Your task to perform on an android device: all mails in gmail Image 0: 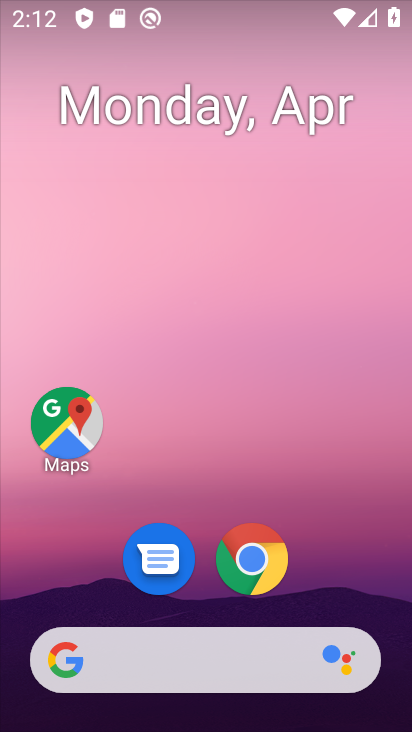
Step 0: drag from (320, 550) to (43, 41)
Your task to perform on an android device: all mails in gmail Image 1: 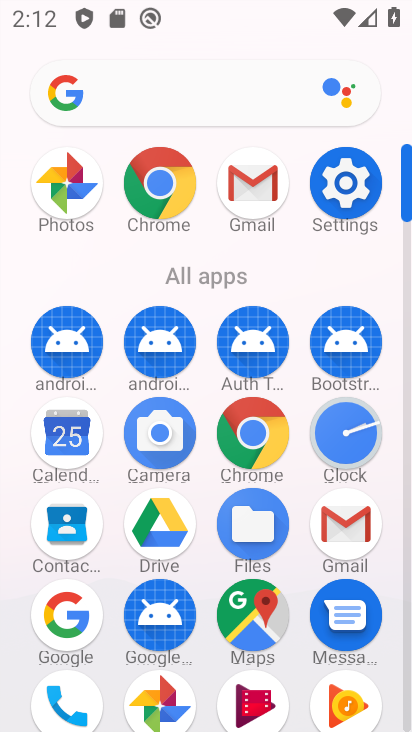
Step 1: click (256, 183)
Your task to perform on an android device: all mails in gmail Image 2: 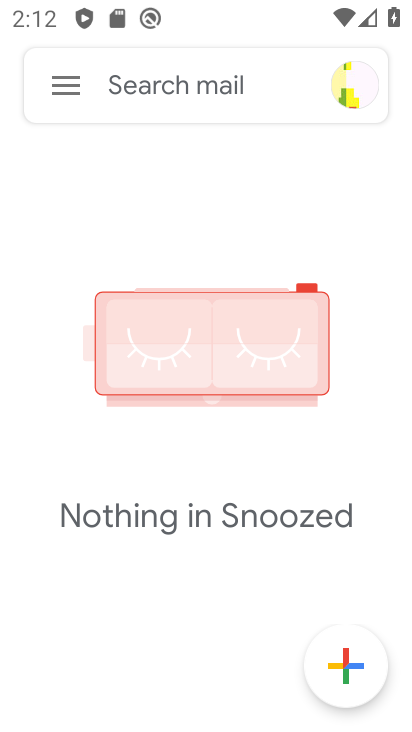
Step 2: click (69, 90)
Your task to perform on an android device: all mails in gmail Image 3: 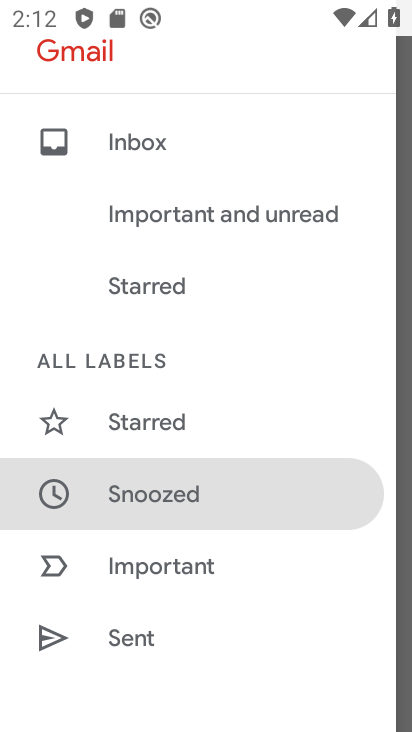
Step 3: drag from (218, 639) to (171, 231)
Your task to perform on an android device: all mails in gmail Image 4: 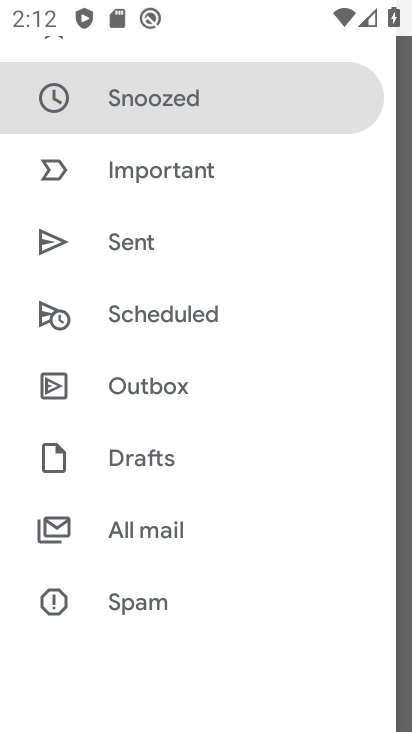
Step 4: click (135, 528)
Your task to perform on an android device: all mails in gmail Image 5: 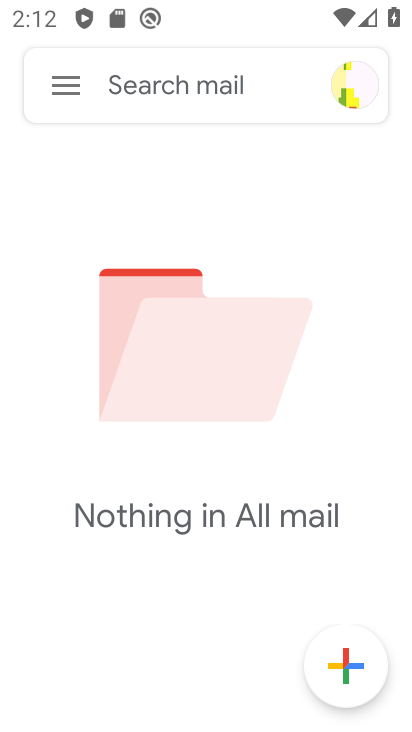
Step 5: task complete